Your task to perform on an android device: Go to wifi settings Image 0: 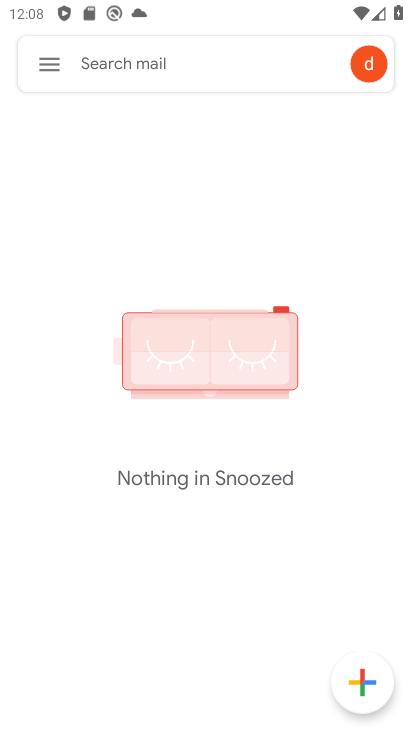
Step 0: drag from (253, 23) to (135, 728)
Your task to perform on an android device: Go to wifi settings Image 1: 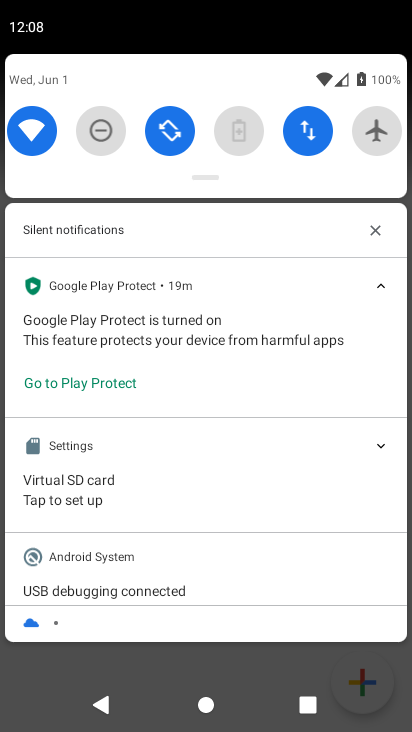
Step 1: click (30, 145)
Your task to perform on an android device: Go to wifi settings Image 2: 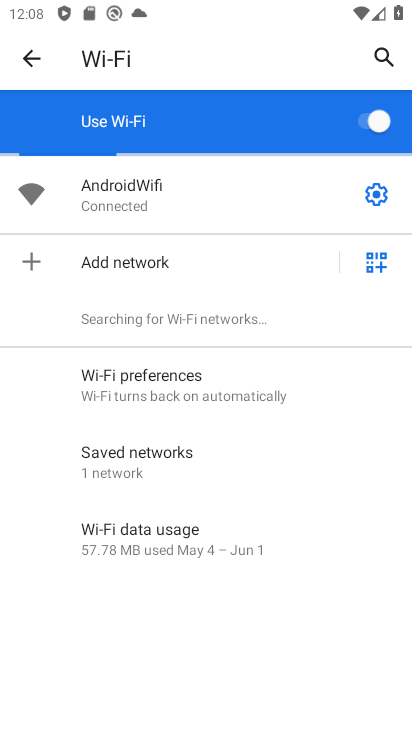
Step 2: task complete